Your task to perform on an android device: Go to internet settings Image 0: 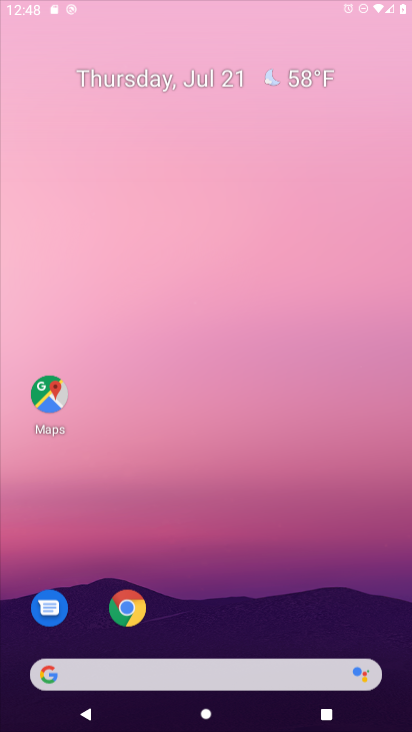
Step 0: press home button
Your task to perform on an android device: Go to internet settings Image 1: 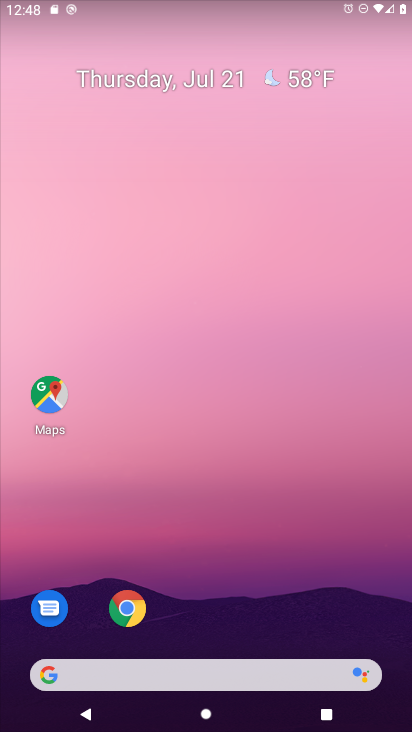
Step 1: drag from (211, 642) to (217, 31)
Your task to perform on an android device: Go to internet settings Image 2: 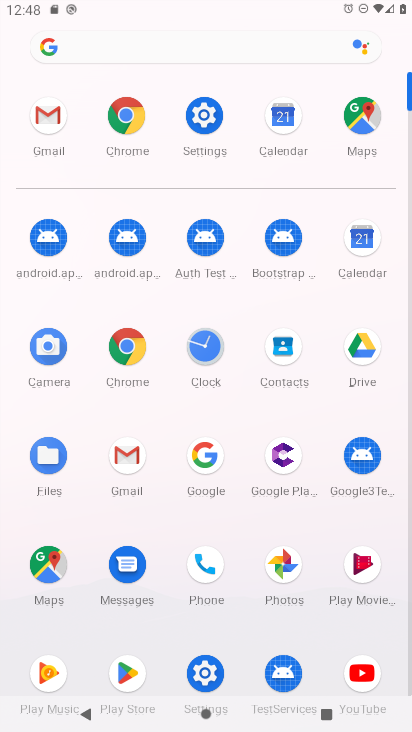
Step 2: click (200, 114)
Your task to perform on an android device: Go to internet settings Image 3: 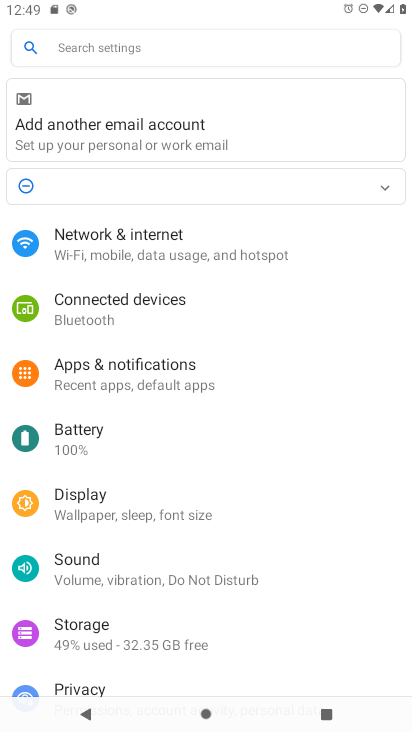
Step 3: click (124, 239)
Your task to perform on an android device: Go to internet settings Image 4: 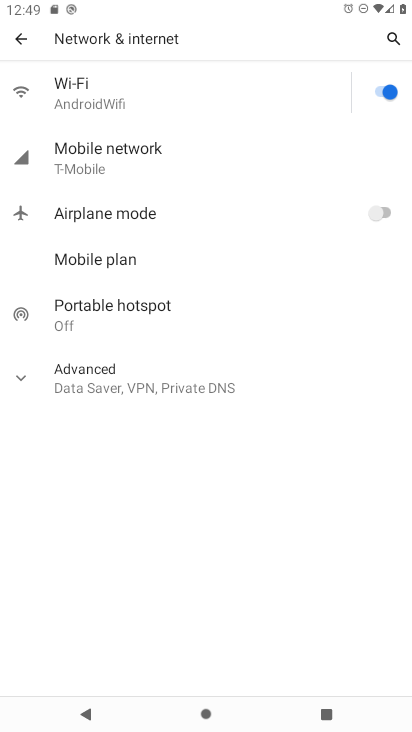
Step 4: task complete